Your task to perform on an android device: read, delete, or share a saved page in the chrome app Image 0: 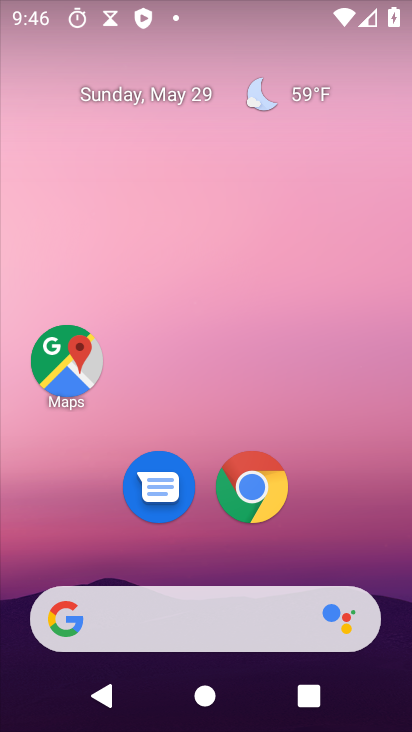
Step 0: click (252, 485)
Your task to perform on an android device: read, delete, or share a saved page in the chrome app Image 1: 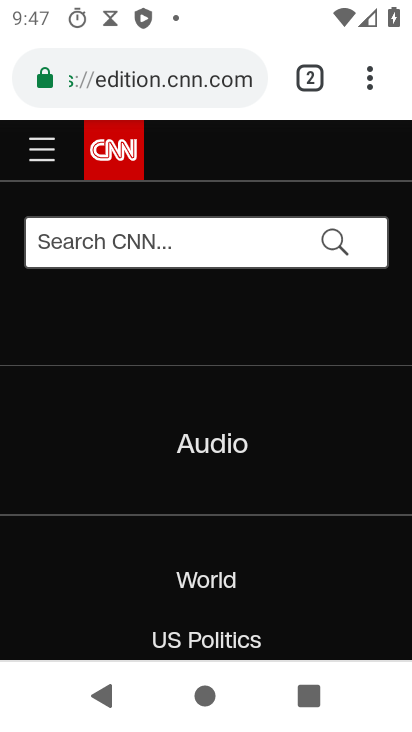
Step 1: click (370, 77)
Your task to perform on an android device: read, delete, or share a saved page in the chrome app Image 2: 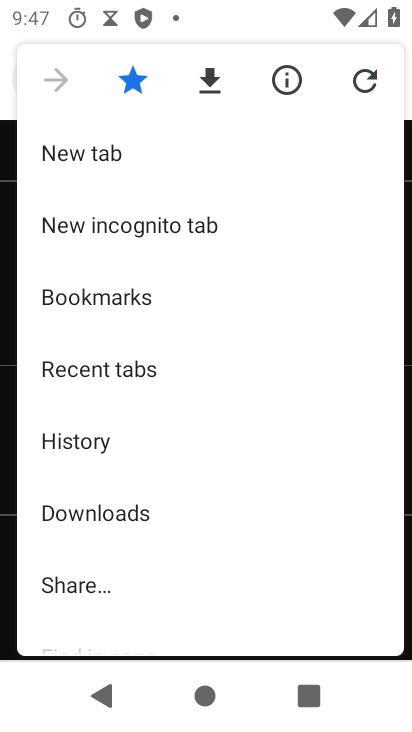
Step 2: drag from (135, 434) to (143, 330)
Your task to perform on an android device: read, delete, or share a saved page in the chrome app Image 3: 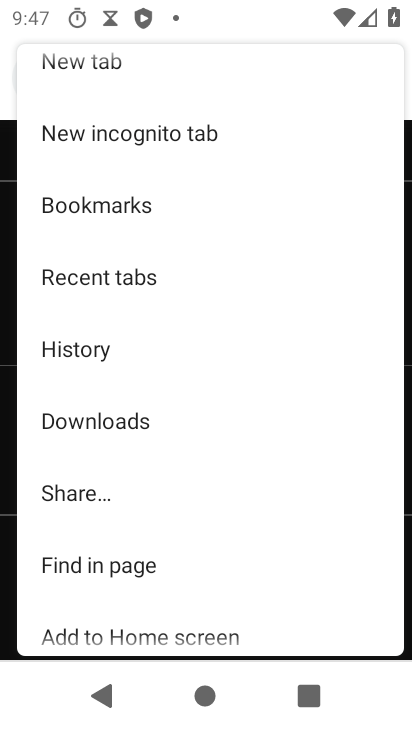
Step 3: drag from (121, 478) to (154, 408)
Your task to perform on an android device: read, delete, or share a saved page in the chrome app Image 4: 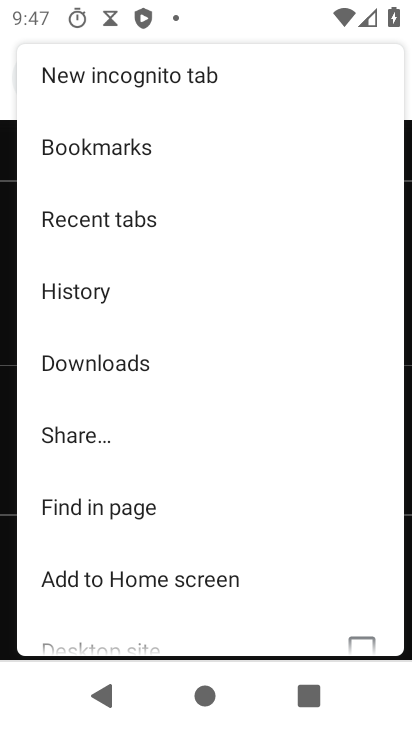
Step 4: click (154, 366)
Your task to perform on an android device: read, delete, or share a saved page in the chrome app Image 5: 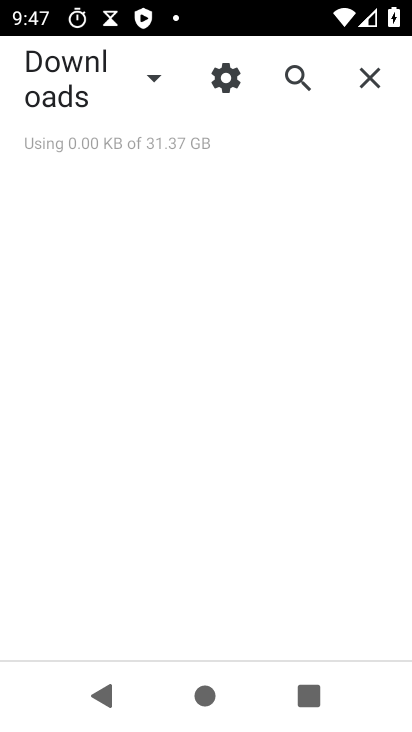
Step 5: click (160, 77)
Your task to perform on an android device: read, delete, or share a saved page in the chrome app Image 6: 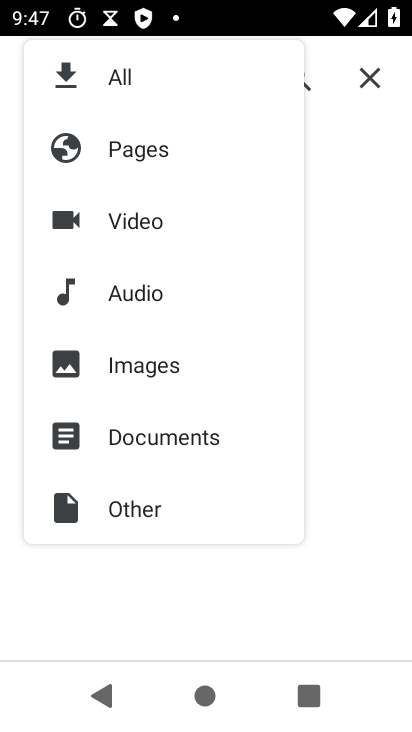
Step 6: click (167, 104)
Your task to perform on an android device: read, delete, or share a saved page in the chrome app Image 7: 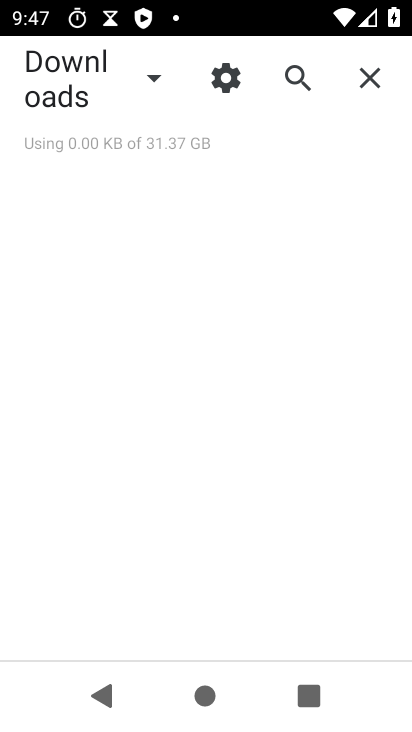
Step 7: task complete